Your task to perform on an android device: check battery use Image 0: 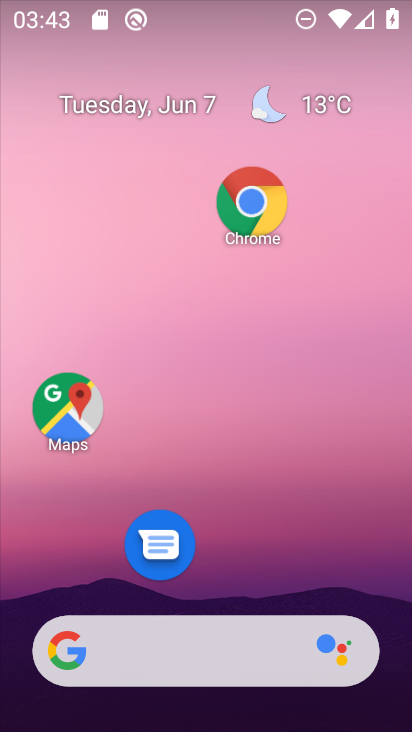
Step 0: drag from (245, 543) to (255, 278)
Your task to perform on an android device: check battery use Image 1: 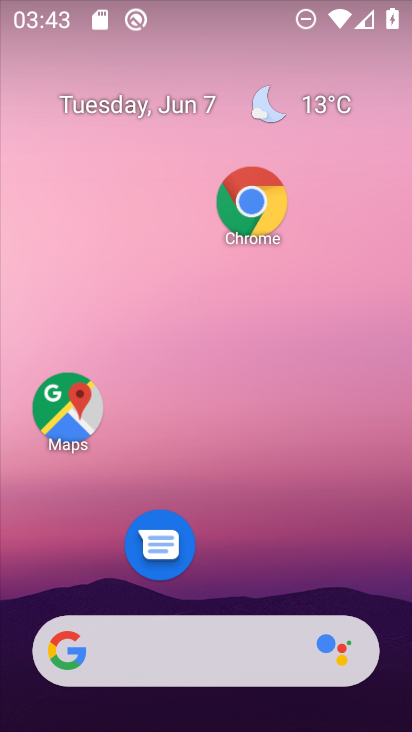
Step 1: drag from (191, 630) to (239, 239)
Your task to perform on an android device: check battery use Image 2: 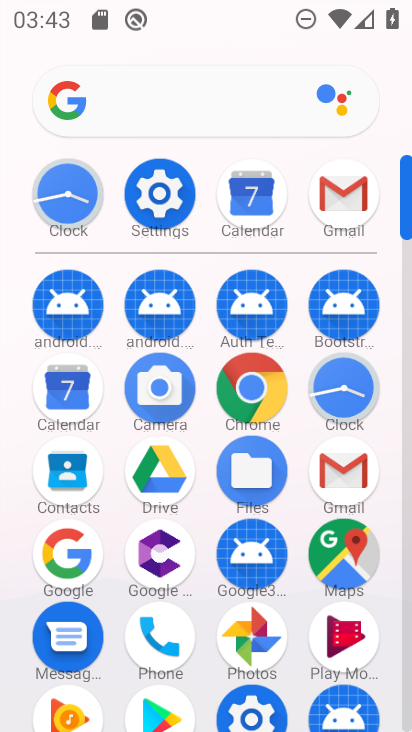
Step 2: click (164, 182)
Your task to perform on an android device: check battery use Image 3: 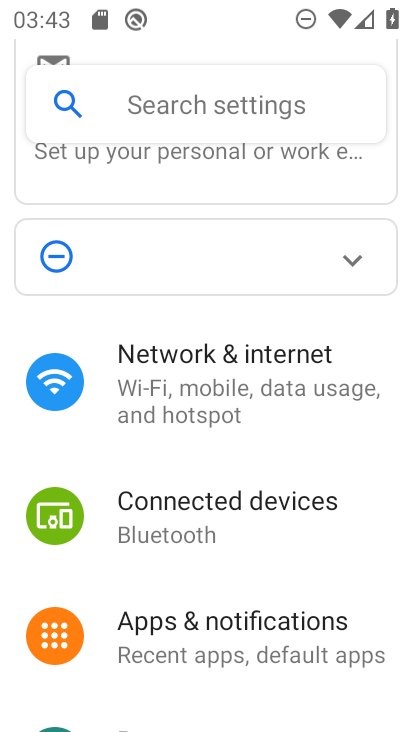
Step 3: drag from (208, 658) to (234, 270)
Your task to perform on an android device: check battery use Image 4: 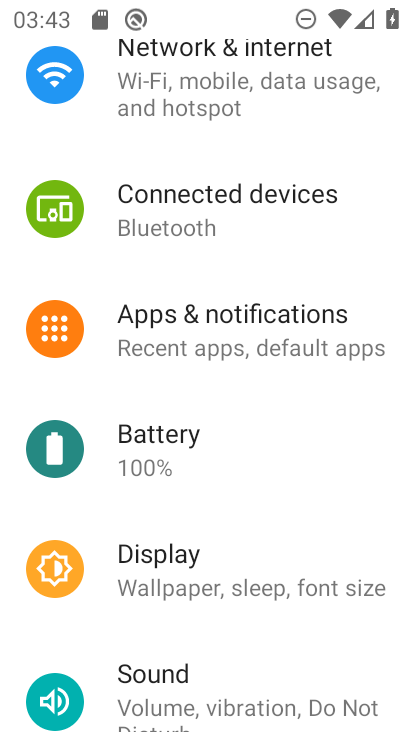
Step 4: click (193, 432)
Your task to perform on an android device: check battery use Image 5: 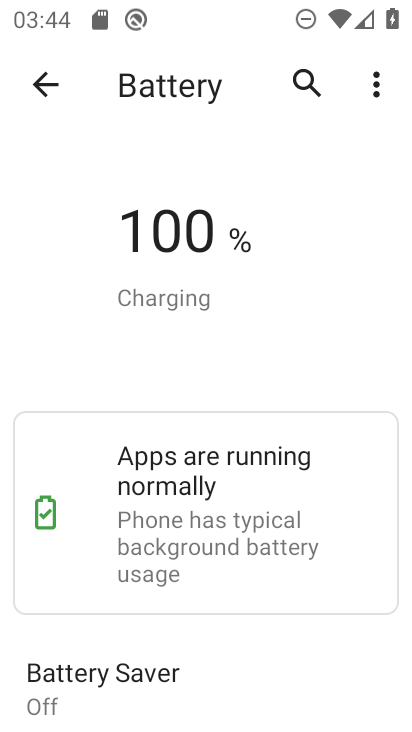
Step 5: task complete